Your task to perform on an android device: Open Google Maps Image 0: 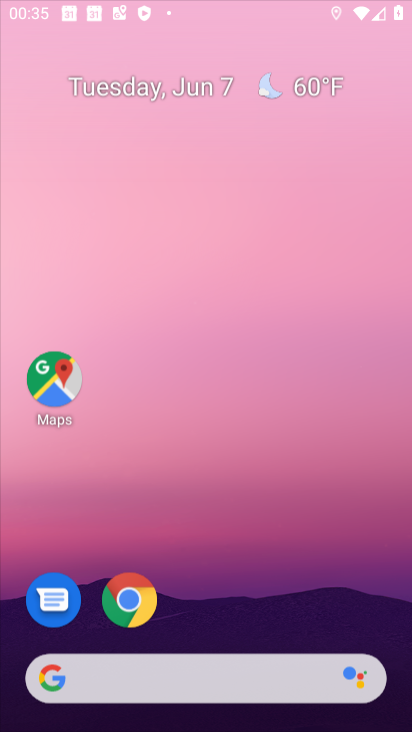
Step 0: click (217, 277)
Your task to perform on an android device: Open Google Maps Image 1: 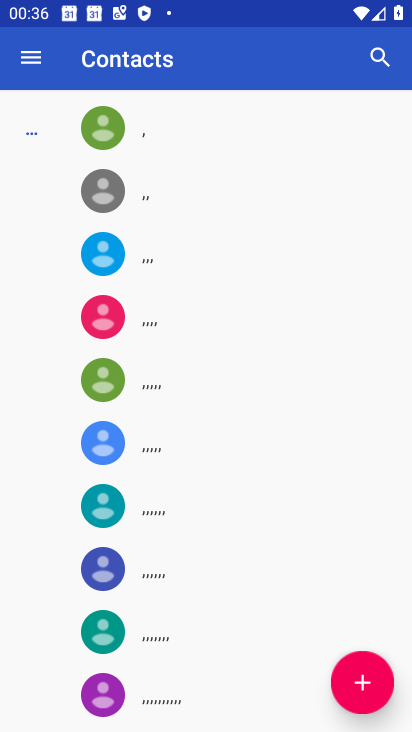
Step 1: press home button
Your task to perform on an android device: Open Google Maps Image 2: 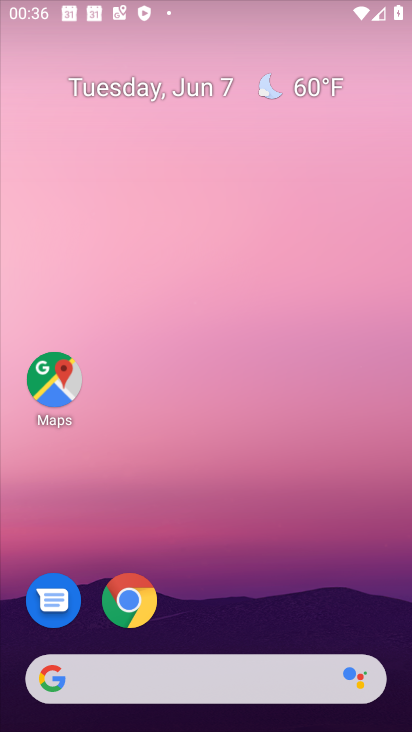
Step 2: drag from (238, 728) to (224, 217)
Your task to perform on an android device: Open Google Maps Image 3: 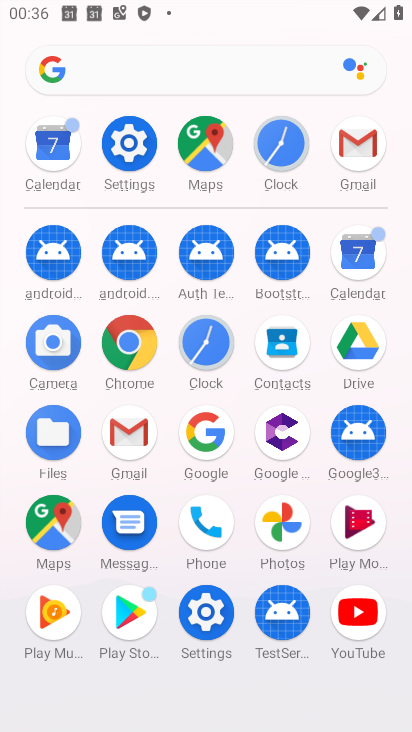
Step 3: click (52, 523)
Your task to perform on an android device: Open Google Maps Image 4: 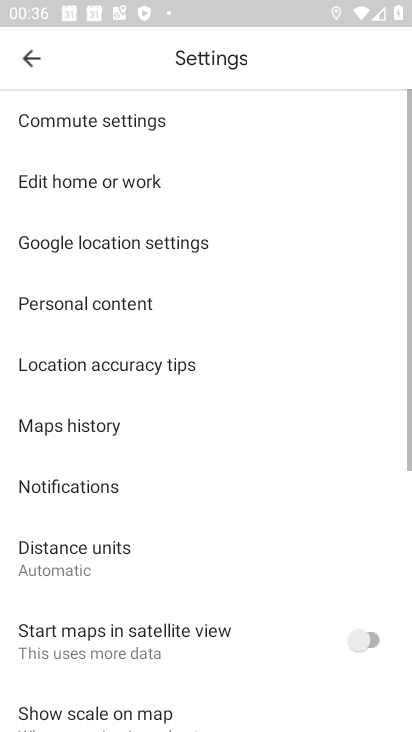
Step 4: click (34, 61)
Your task to perform on an android device: Open Google Maps Image 5: 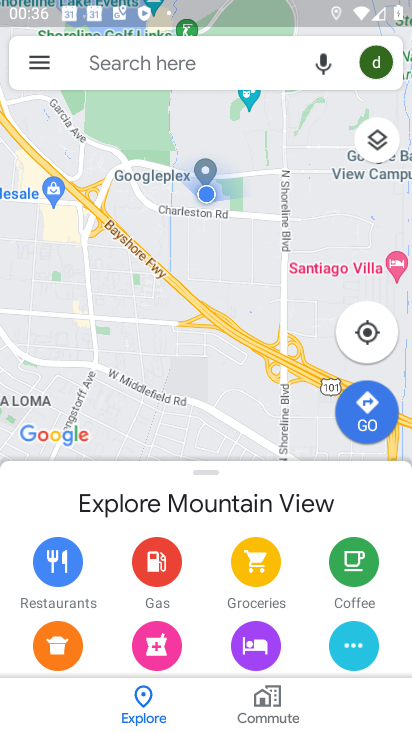
Step 5: task complete